Your task to perform on an android device: check data usage Image 0: 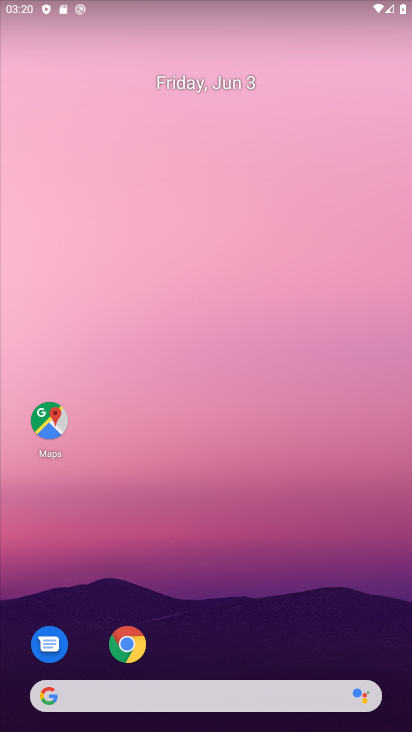
Step 0: drag from (263, 3) to (215, 382)
Your task to perform on an android device: check data usage Image 1: 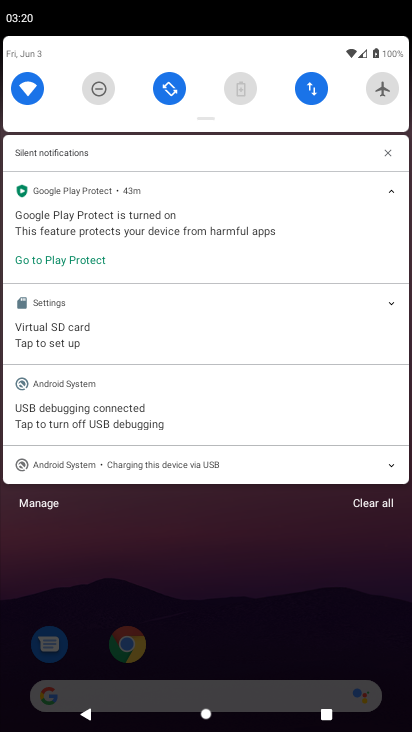
Step 1: click (310, 91)
Your task to perform on an android device: check data usage Image 2: 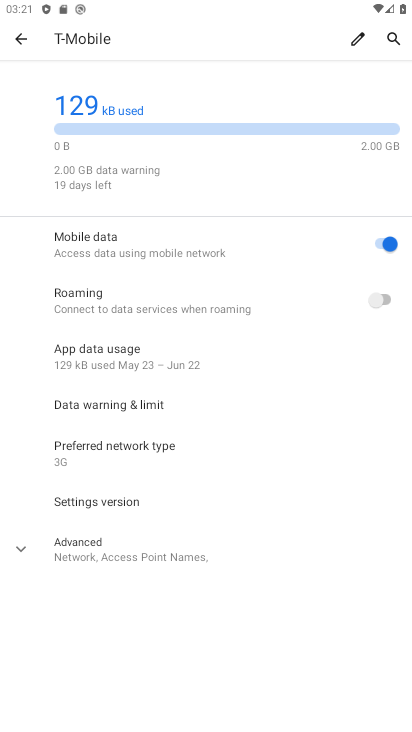
Step 2: task complete